Your task to perform on an android device: View the shopping cart on costco.com. Image 0: 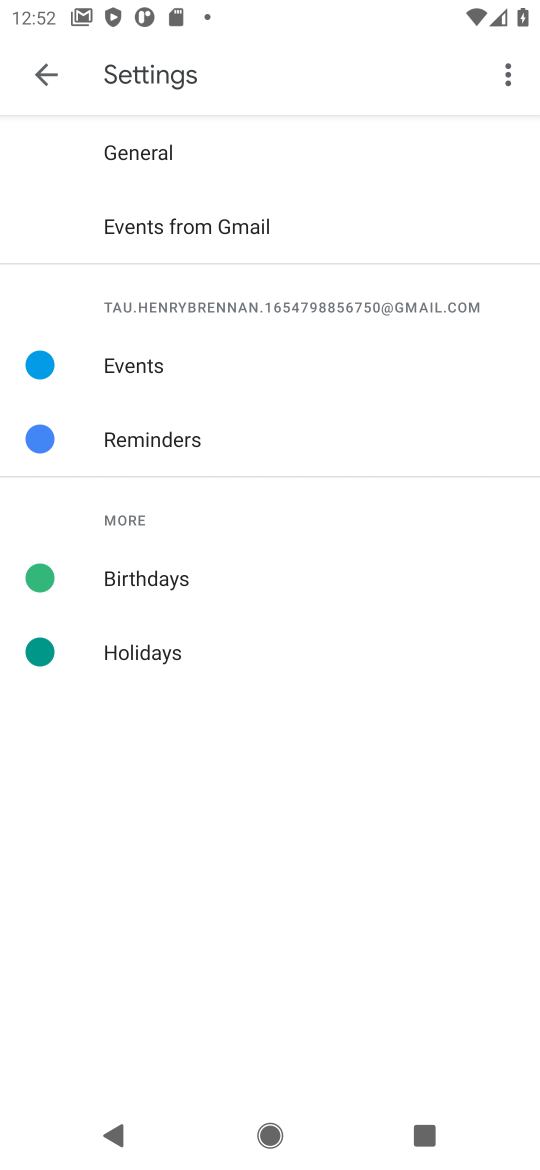
Step 0: press home button
Your task to perform on an android device: View the shopping cart on costco.com. Image 1: 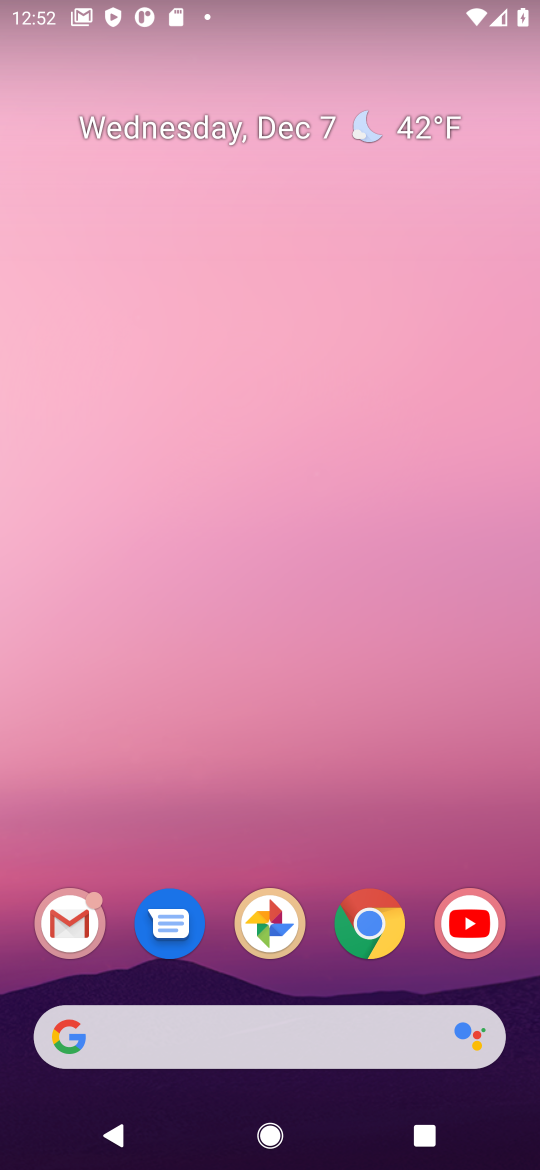
Step 1: click (373, 924)
Your task to perform on an android device: View the shopping cart on costco.com. Image 2: 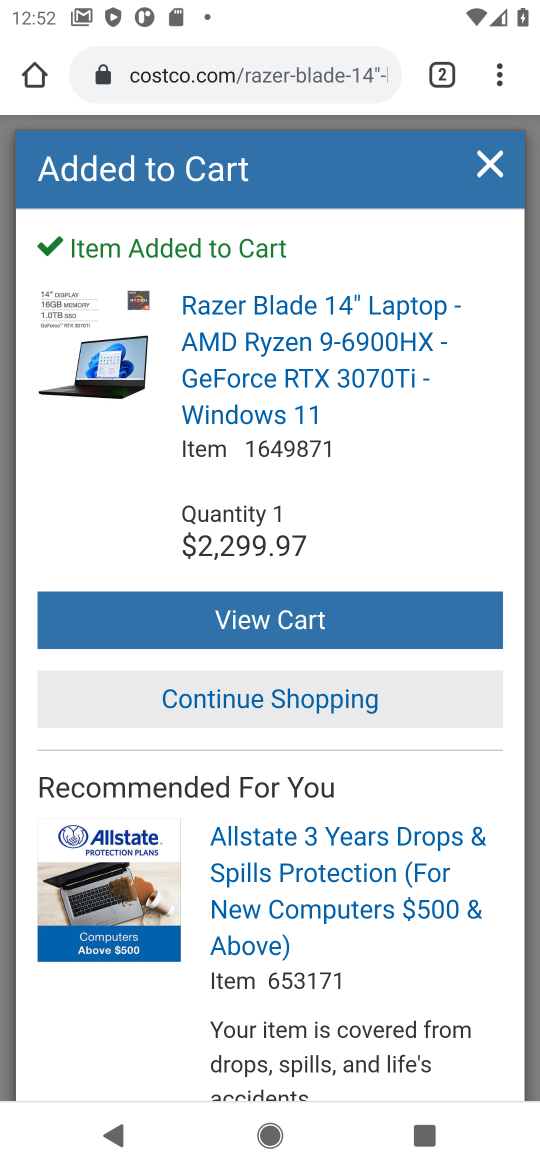
Step 2: click (491, 167)
Your task to perform on an android device: View the shopping cart on costco.com. Image 3: 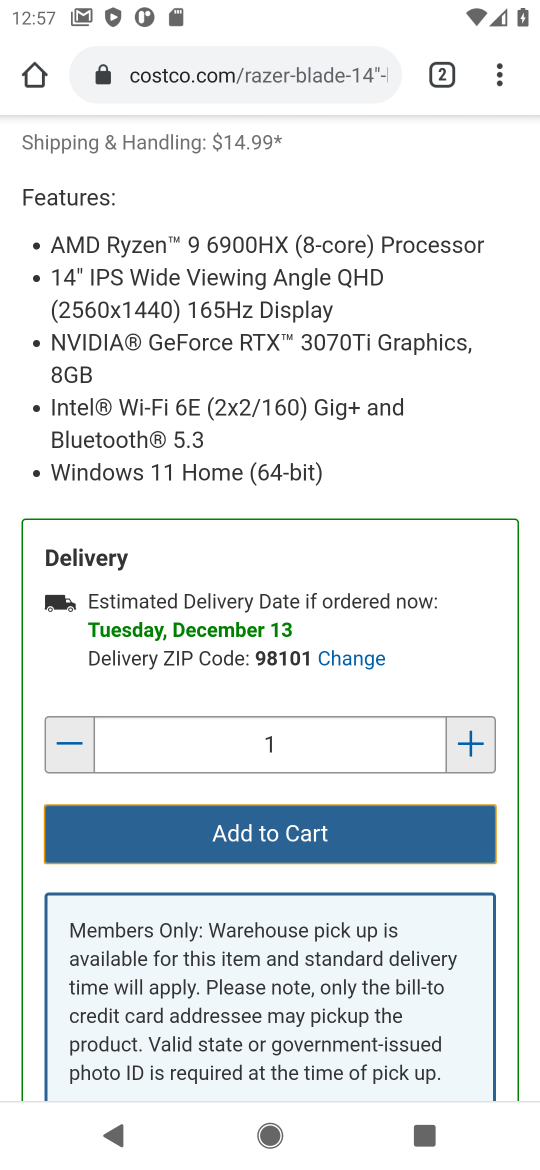
Step 3: task complete